Your task to perform on an android device: Play the last video I watched on Youtube Image 0: 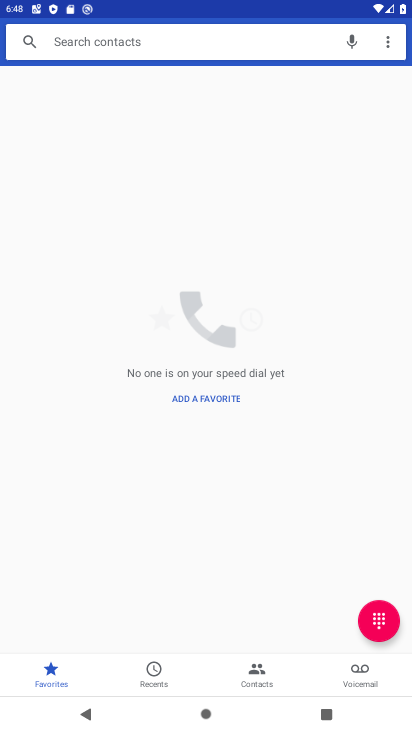
Step 0: drag from (280, 633) to (282, 416)
Your task to perform on an android device: Play the last video I watched on Youtube Image 1: 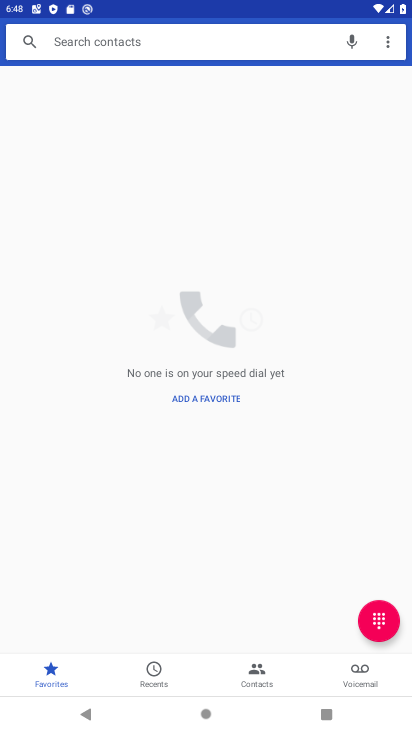
Step 1: press home button
Your task to perform on an android device: Play the last video I watched on Youtube Image 2: 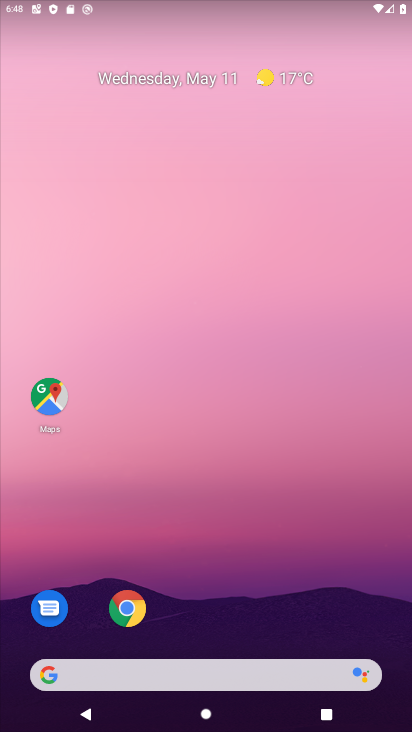
Step 2: drag from (223, 613) to (253, 74)
Your task to perform on an android device: Play the last video I watched on Youtube Image 3: 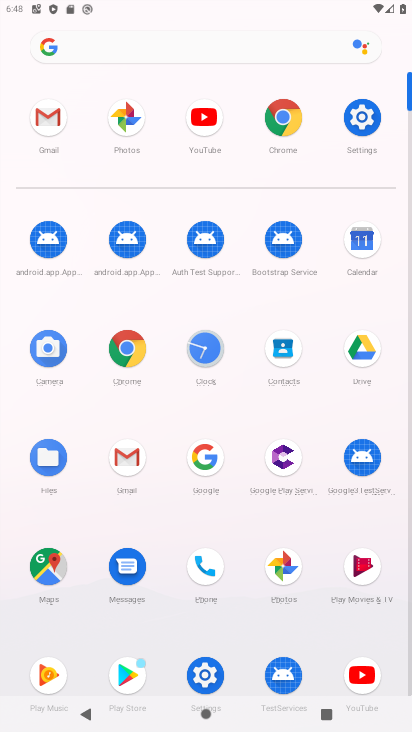
Step 3: click (204, 146)
Your task to perform on an android device: Play the last video I watched on Youtube Image 4: 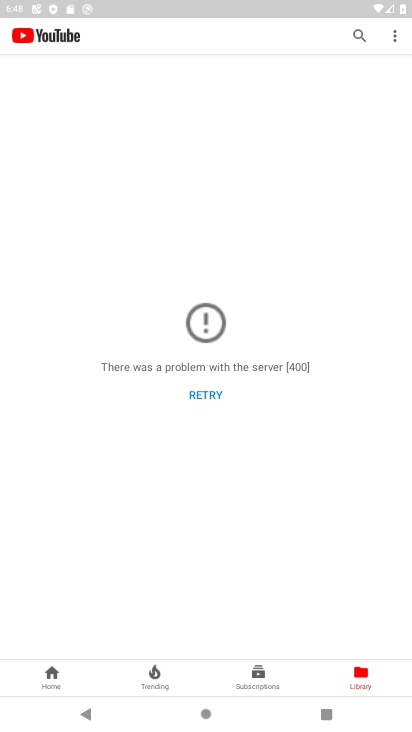
Step 4: task complete